Your task to perform on an android device: Open calendar and show me the first week of next month Image 0: 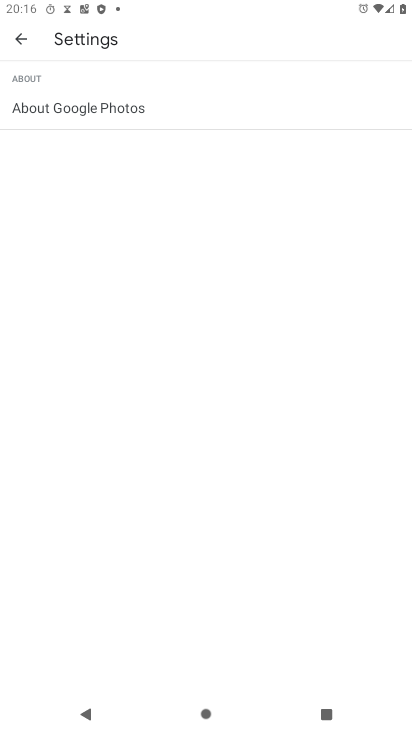
Step 0: press home button
Your task to perform on an android device: Open calendar and show me the first week of next month Image 1: 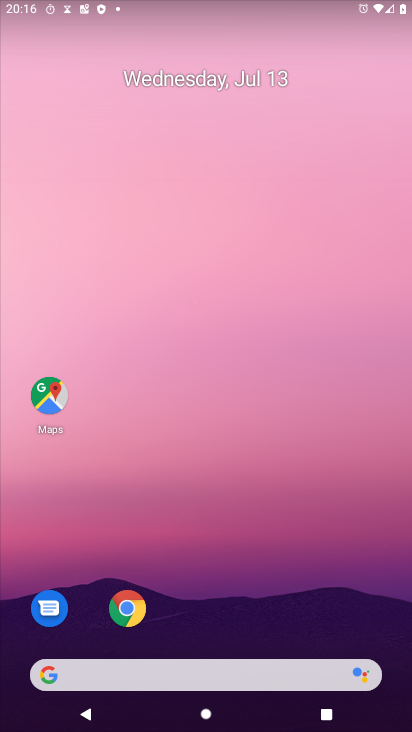
Step 1: drag from (191, 634) to (179, 75)
Your task to perform on an android device: Open calendar and show me the first week of next month Image 2: 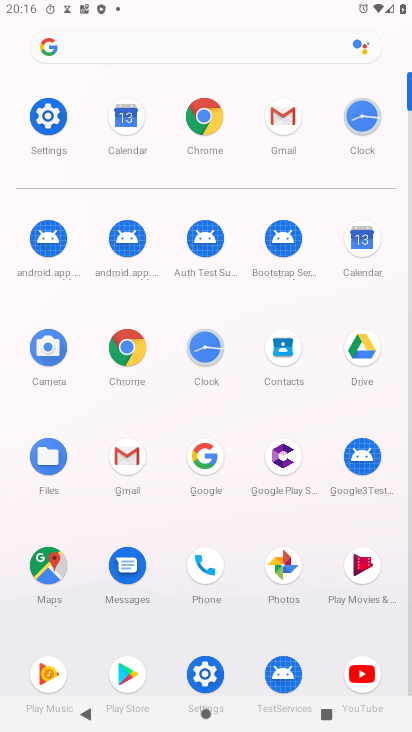
Step 2: click (360, 248)
Your task to perform on an android device: Open calendar and show me the first week of next month Image 3: 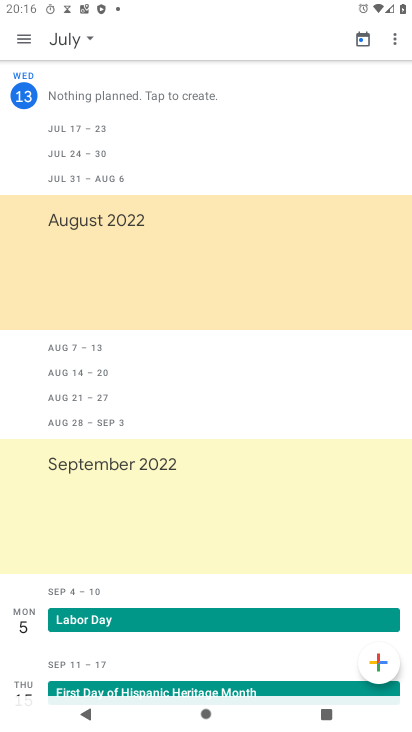
Step 3: click (31, 37)
Your task to perform on an android device: Open calendar and show me the first week of next month Image 4: 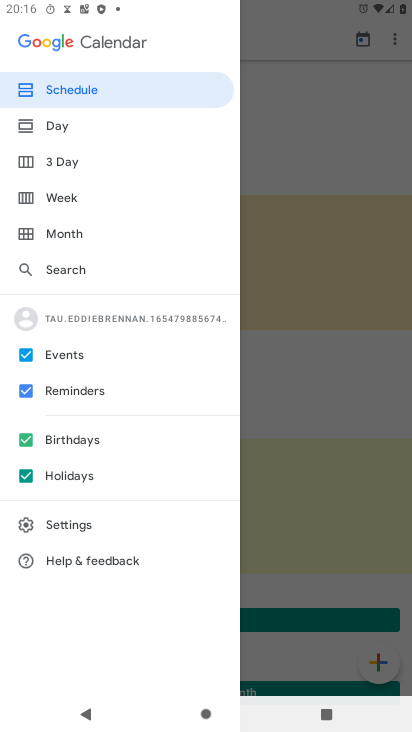
Step 4: click (71, 197)
Your task to perform on an android device: Open calendar and show me the first week of next month Image 5: 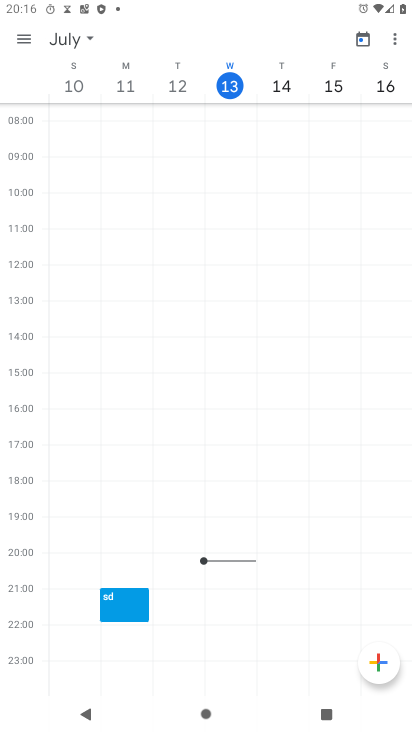
Step 5: task complete